Your task to perform on an android device: Toggle the flashlight Image 0: 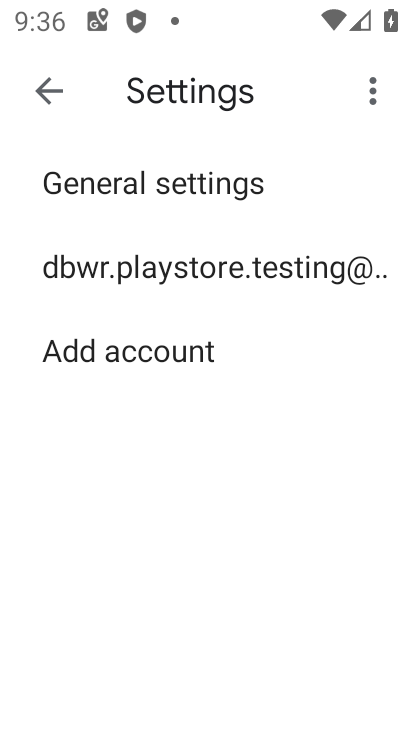
Step 0: task impossible